Your task to perform on an android device: Search for vegetarian restaurants on Maps Image 0: 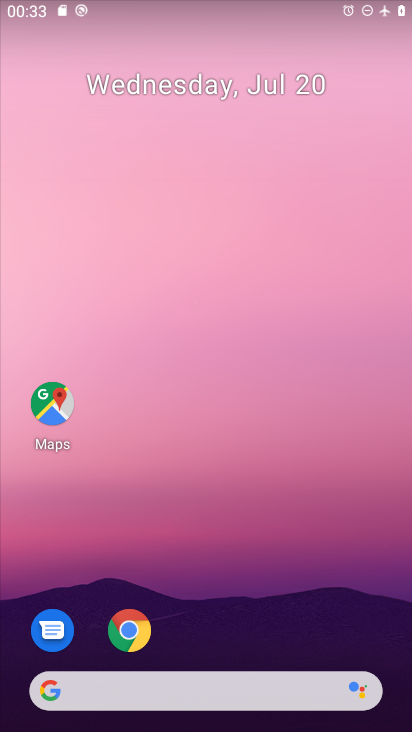
Step 0: click (39, 438)
Your task to perform on an android device: Search for vegetarian restaurants on Maps Image 1: 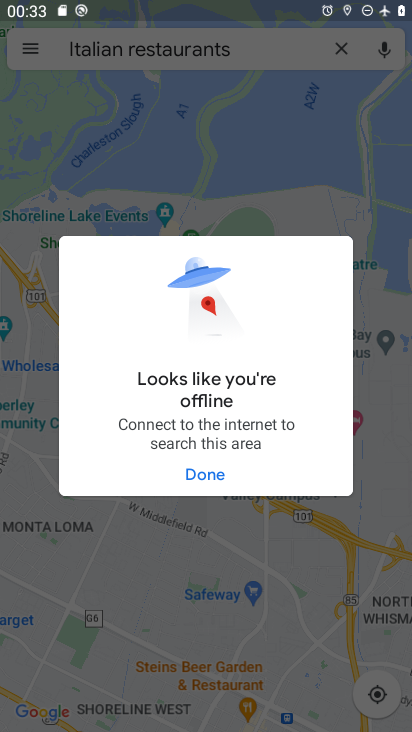
Step 1: click (182, 487)
Your task to perform on an android device: Search for vegetarian restaurants on Maps Image 2: 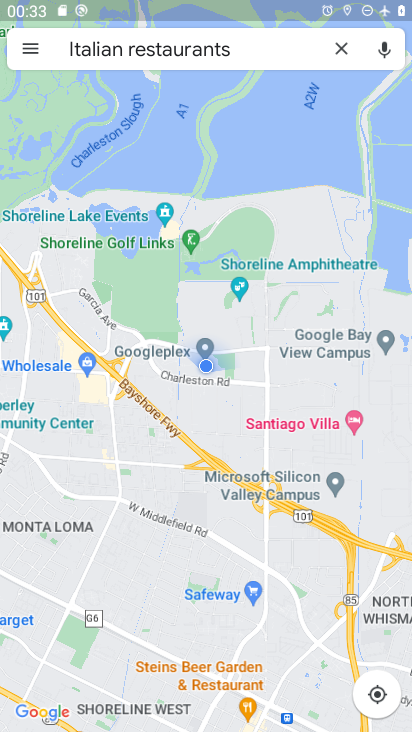
Step 2: click (333, 43)
Your task to perform on an android device: Search for vegetarian restaurants on Maps Image 3: 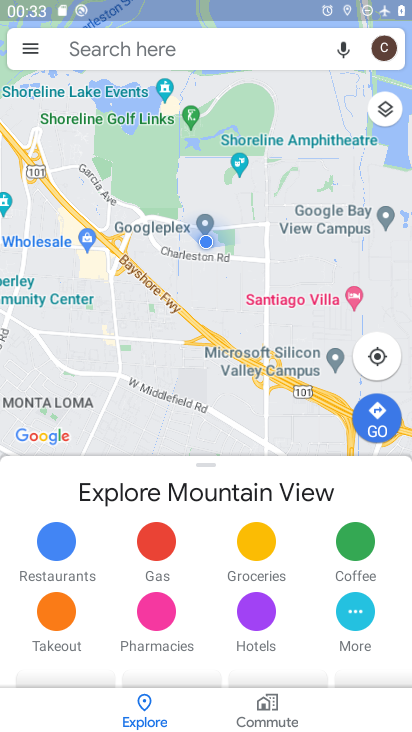
Step 3: click (277, 42)
Your task to perform on an android device: Search for vegetarian restaurants on Maps Image 4: 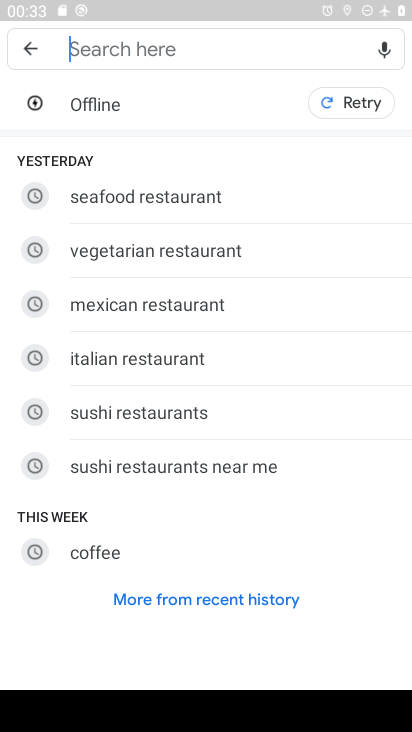
Step 4: click (169, 252)
Your task to perform on an android device: Search for vegetarian restaurants on Maps Image 5: 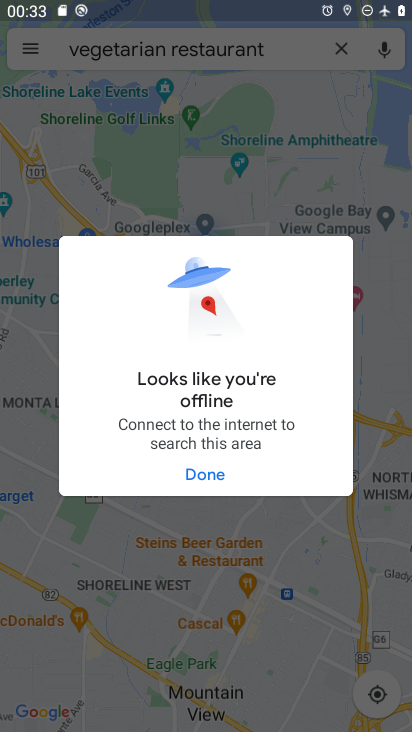
Step 5: task complete